Your task to perform on an android device: Turn off the flashlight Image 0: 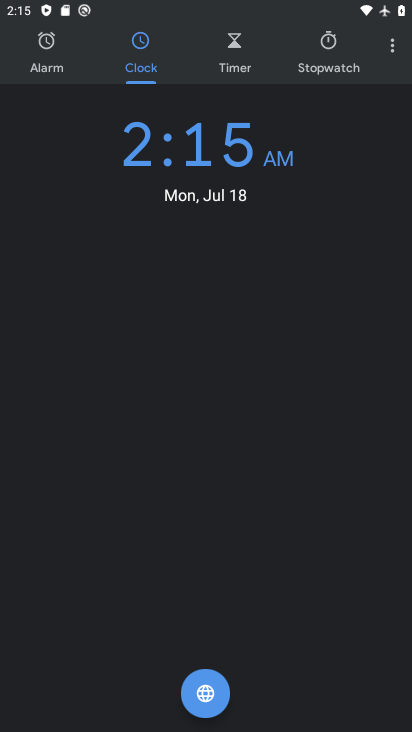
Step 0: press home button
Your task to perform on an android device: Turn off the flashlight Image 1: 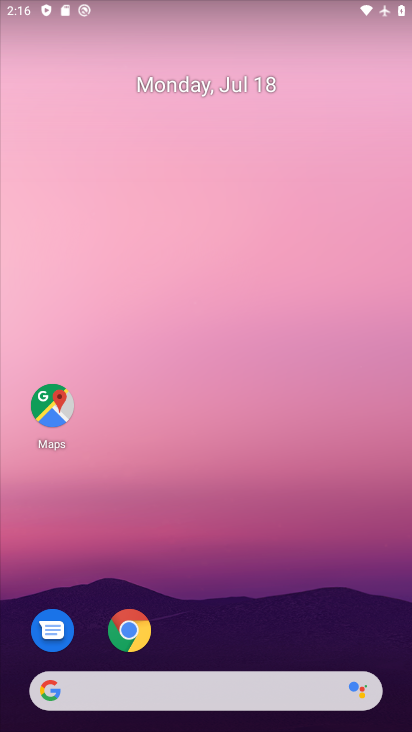
Step 1: task complete